Your task to perform on an android device: turn smart compose on in the gmail app Image 0: 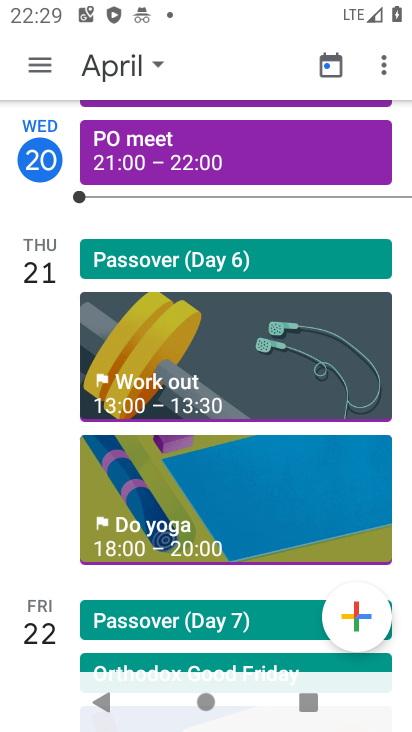
Step 0: press home button
Your task to perform on an android device: turn smart compose on in the gmail app Image 1: 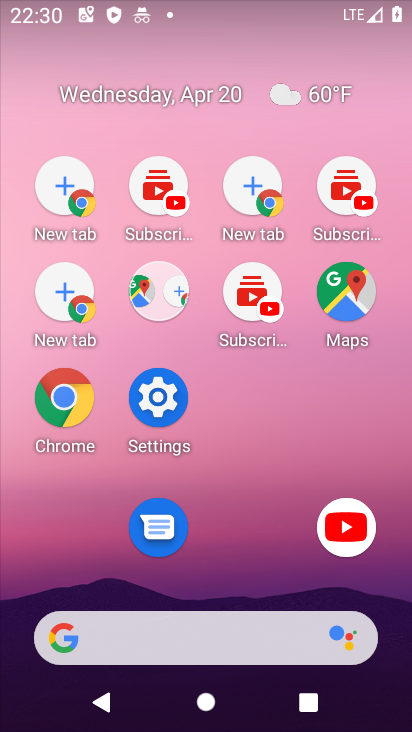
Step 1: drag from (236, 410) to (214, 259)
Your task to perform on an android device: turn smart compose on in the gmail app Image 2: 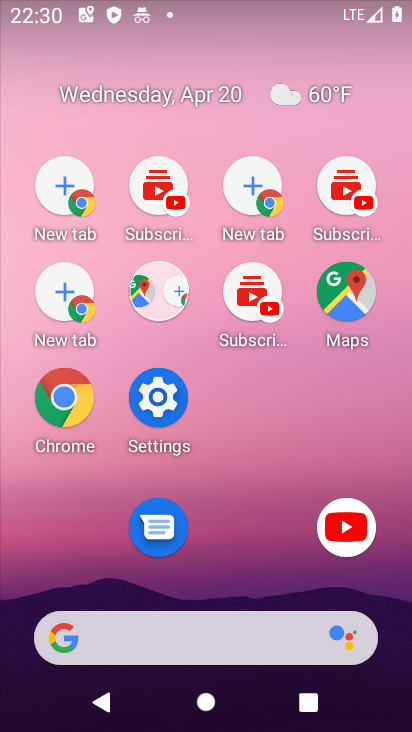
Step 2: drag from (281, 552) to (189, 247)
Your task to perform on an android device: turn smart compose on in the gmail app Image 3: 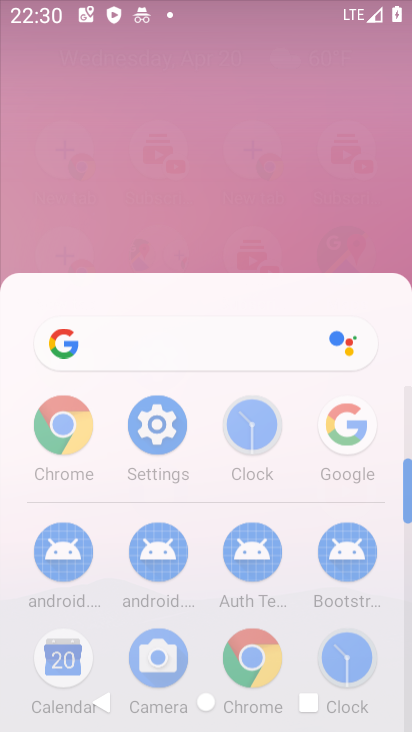
Step 3: drag from (265, 508) to (132, 32)
Your task to perform on an android device: turn smart compose on in the gmail app Image 4: 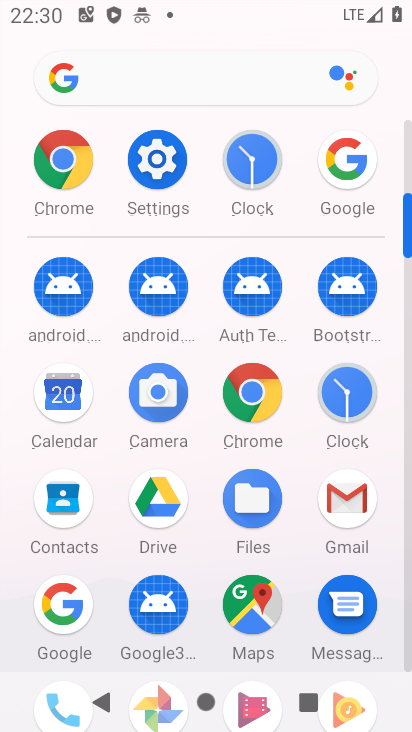
Step 4: click (344, 499)
Your task to perform on an android device: turn smart compose on in the gmail app Image 5: 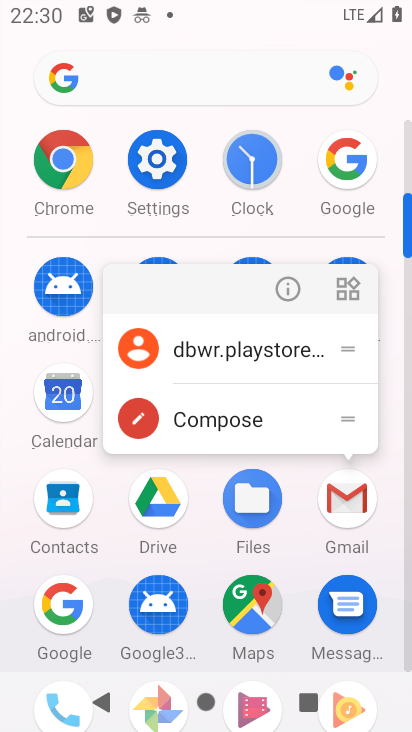
Step 5: click (221, 360)
Your task to perform on an android device: turn smart compose on in the gmail app Image 6: 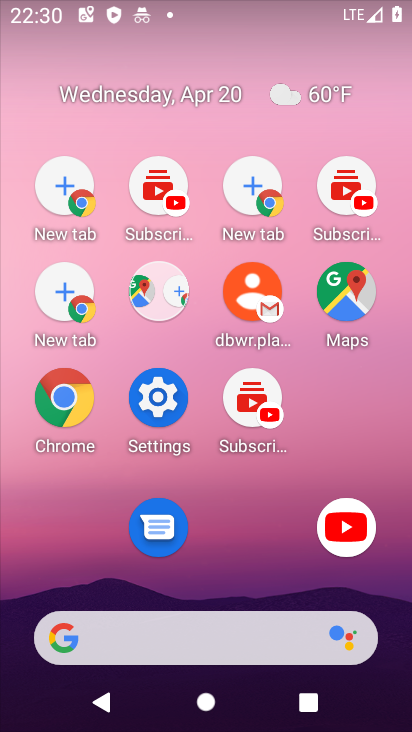
Step 6: drag from (271, 566) to (174, 55)
Your task to perform on an android device: turn smart compose on in the gmail app Image 7: 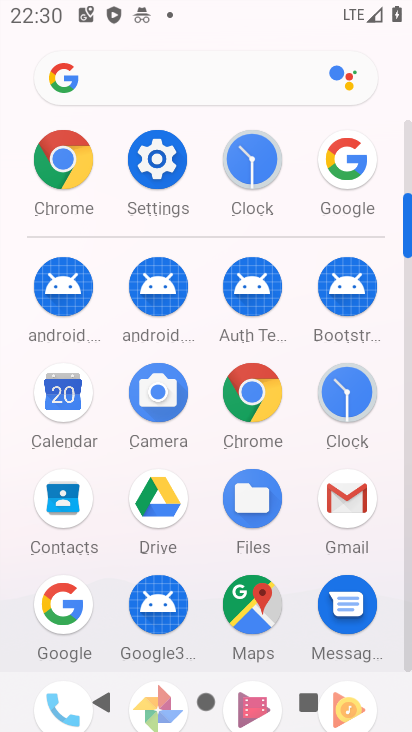
Step 7: click (350, 501)
Your task to perform on an android device: turn smart compose on in the gmail app Image 8: 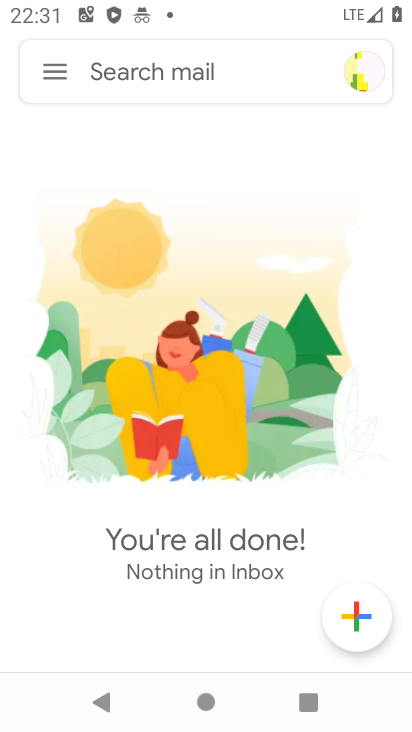
Step 8: click (58, 77)
Your task to perform on an android device: turn smart compose on in the gmail app Image 9: 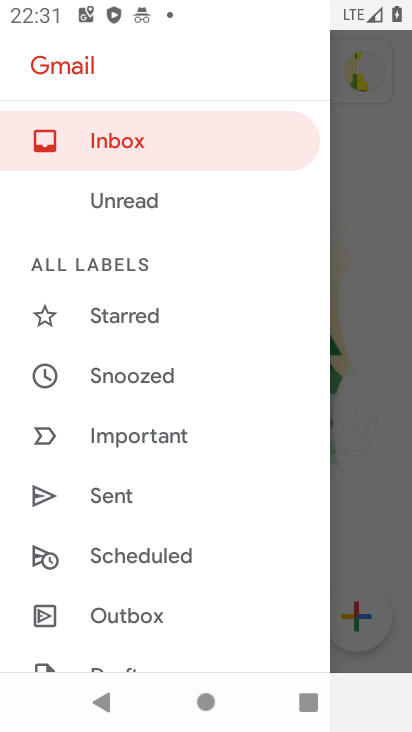
Step 9: click (189, 462)
Your task to perform on an android device: turn smart compose on in the gmail app Image 10: 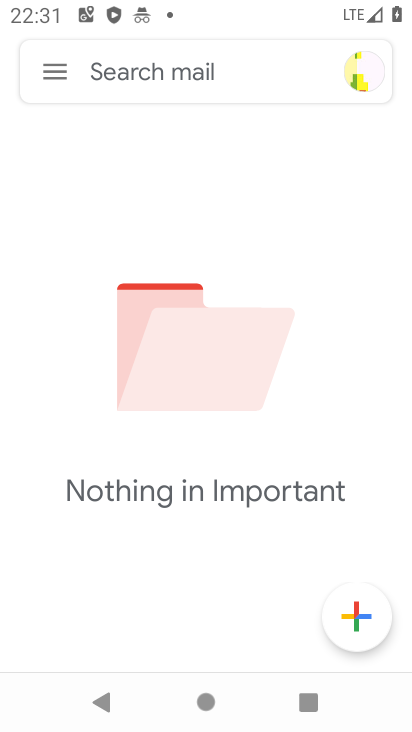
Step 10: click (51, 65)
Your task to perform on an android device: turn smart compose on in the gmail app Image 11: 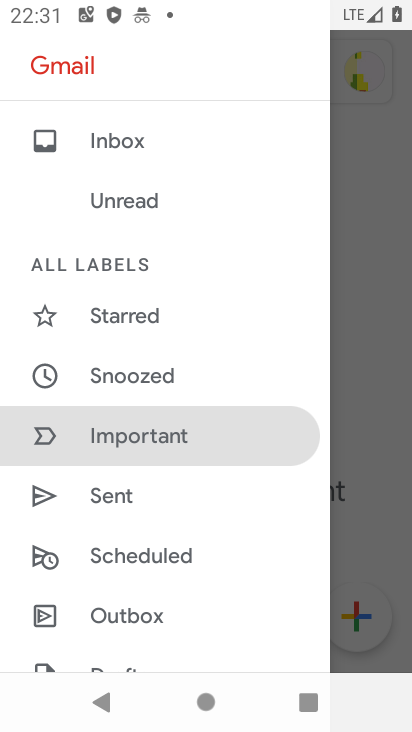
Step 11: drag from (156, 574) to (146, 77)
Your task to perform on an android device: turn smart compose on in the gmail app Image 12: 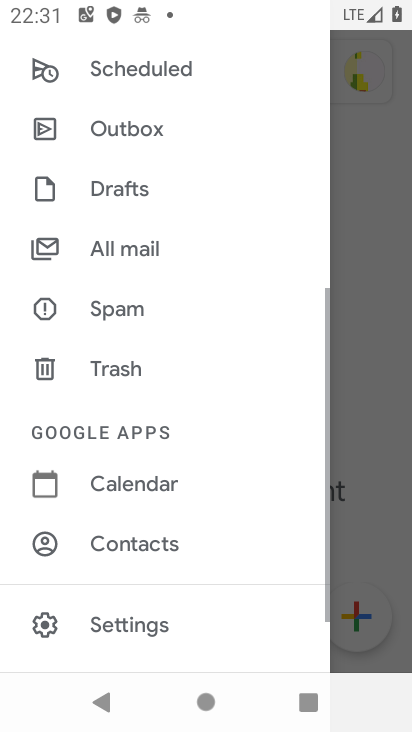
Step 12: drag from (232, 435) to (214, 346)
Your task to perform on an android device: turn smart compose on in the gmail app Image 13: 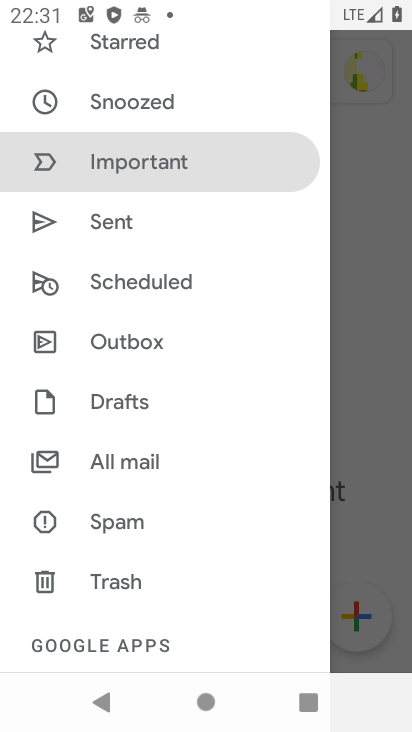
Step 13: drag from (155, 484) to (160, 36)
Your task to perform on an android device: turn smart compose on in the gmail app Image 14: 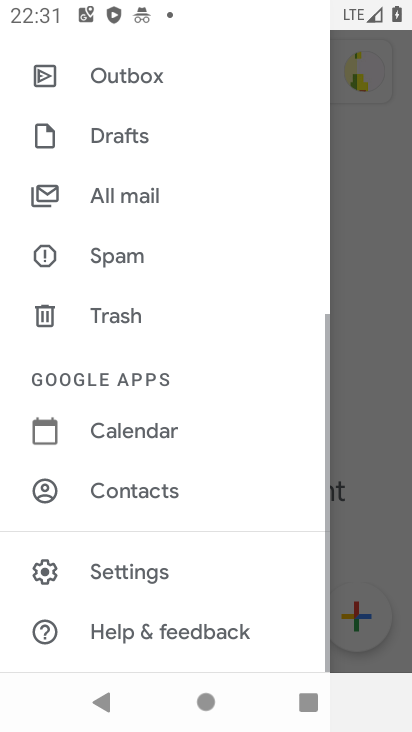
Step 14: click (130, 565)
Your task to perform on an android device: turn smart compose on in the gmail app Image 15: 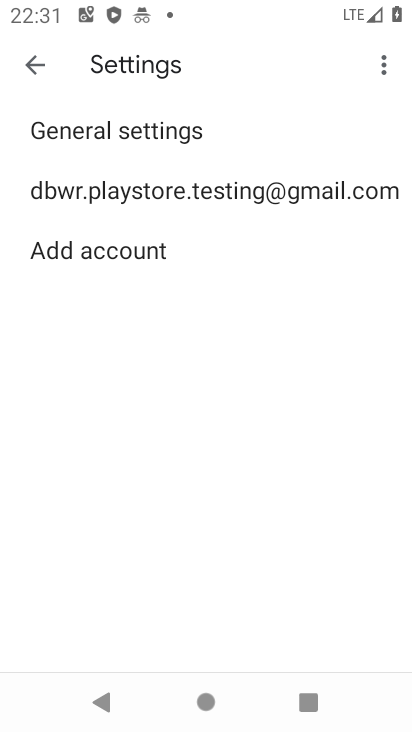
Step 15: click (182, 202)
Your task to perform on an android device: turn smart compose on in the gmail app Image 16: 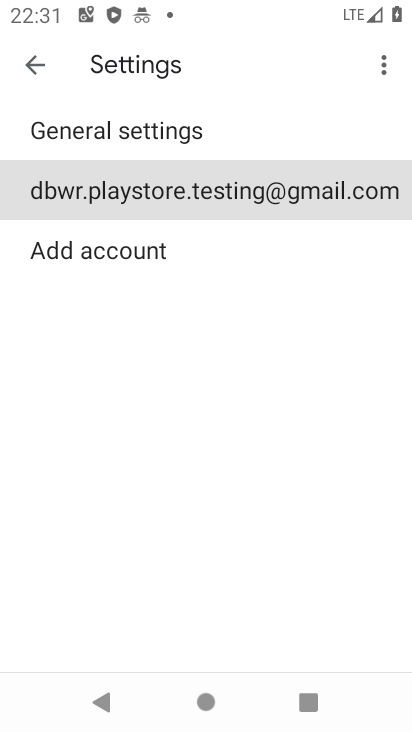
Step 16: click (182, 195)
Your task to perform on an android device: turn smart compose on in the gmail app Image 17: 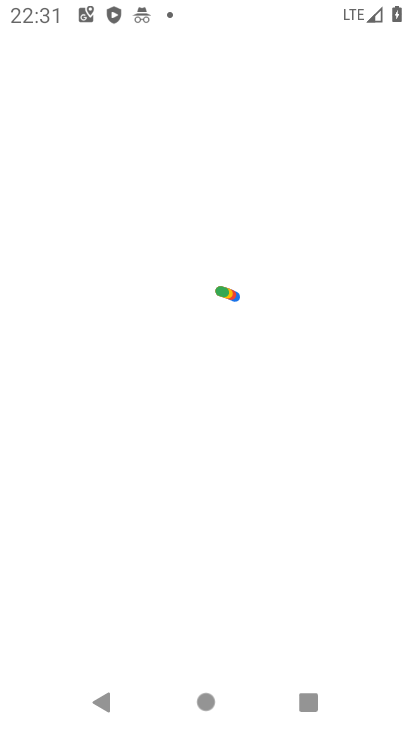
Step 17: press back button
Your task to perform on an android device: turn smart compose on in the gmail app Image 18: 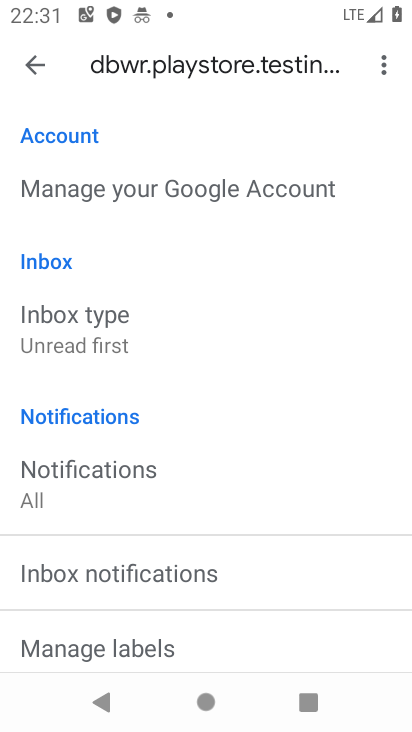
Step 18: drag from (130, 451) to (130, 241)
Your task to perform on an android device: turn smart compose on in the gmail app Image 19: 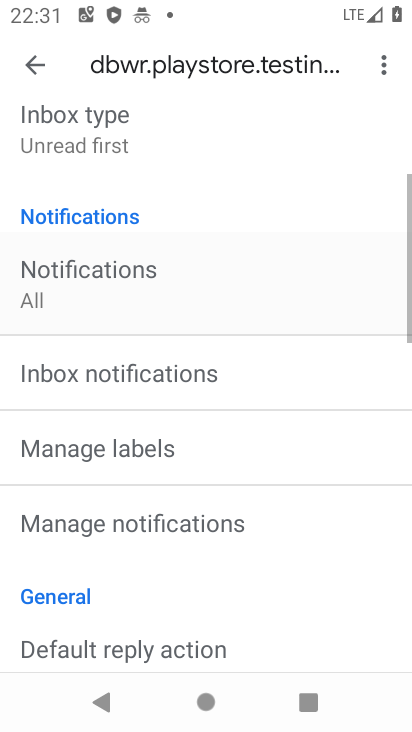
Step 19: drag from (160, 322) to (171, 127)
Your task to perform on an android device: turn smart compose on in the gmail app Image 20: 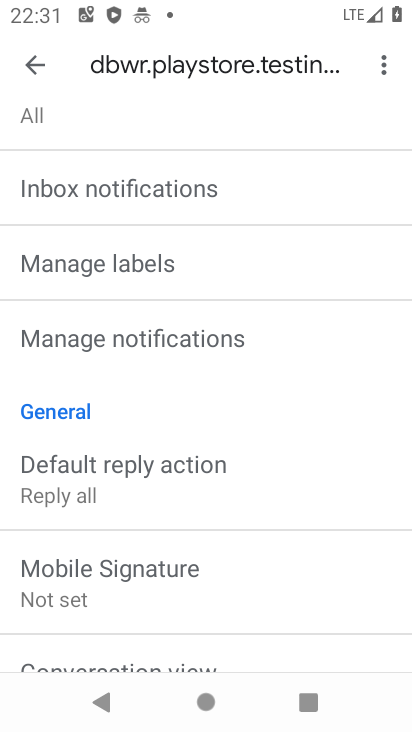
Step 20: drag from (125, 555) to (127, 142)
Your task to perform on an android device: turn smart compose on in the gmail app Image 21: 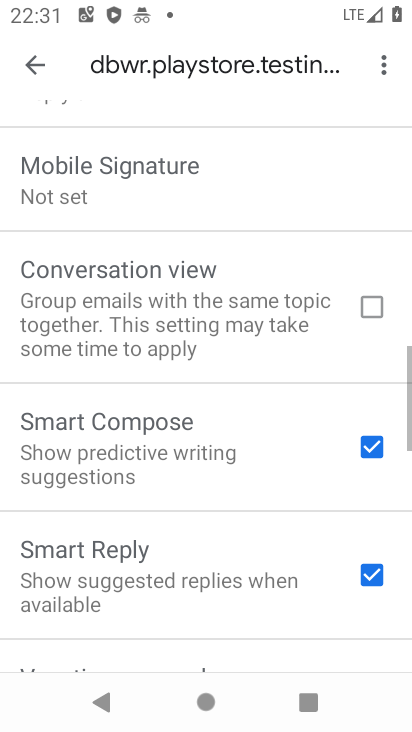
Step 21: drag from (179, 301) to (206, 119)
Your task to perform on an android device: turn smart compose on in the gmail app Image 22: 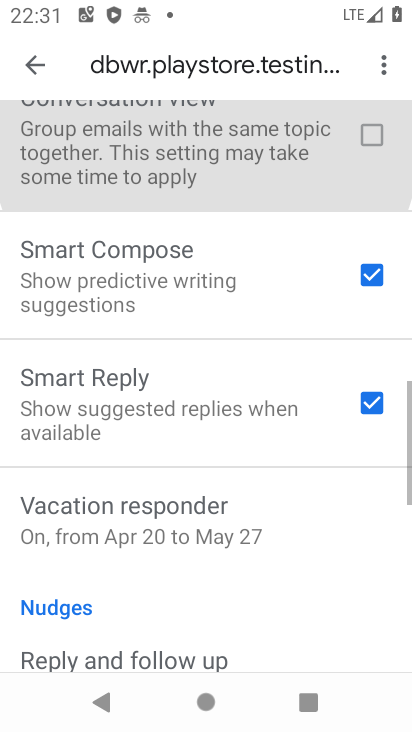
Step 22: drag from (114, 455) to (118, 120)
Your task to perform on an android device: turn smart compose on in the gmail app Image 23: 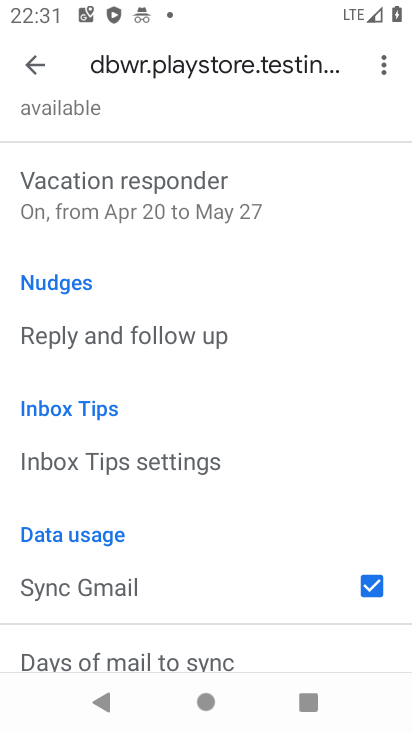
Step 23: drag from (202, 220) to (195, 573)
Your task to perform on an android device: turn smart compose on in the gmail app Image 24: 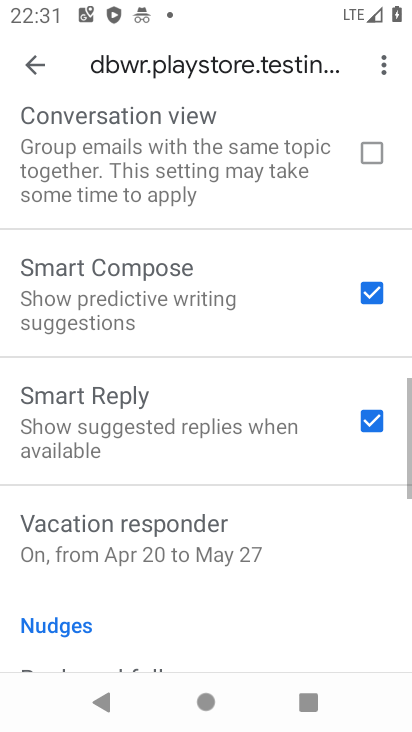
Step 24: drag from (120, 385) to (145, 605)
Your task to perform on an android device: turn smart compose on in the gmail app Image 25: 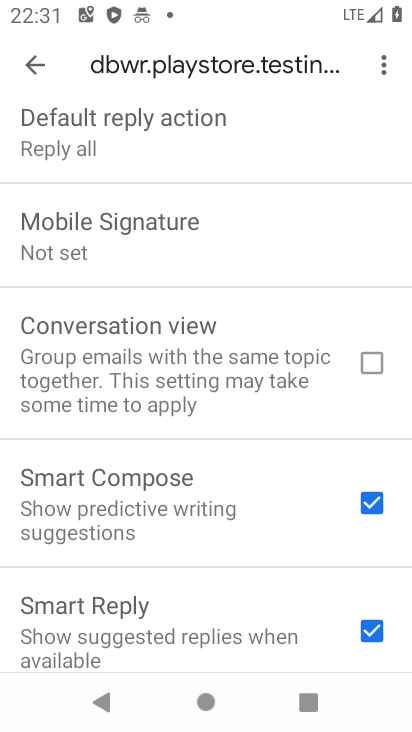
Step 25: click (372, 500)
Your task to perform on an android device: turn smart compose on in the gmail app Image 26: 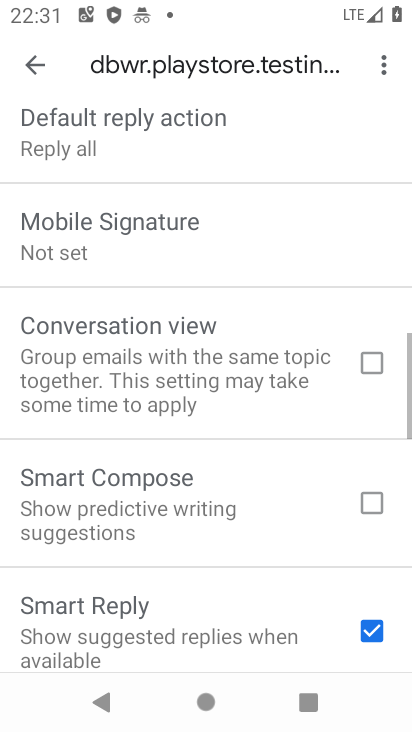
Step 26: click (376, 499)
Your task to perform on an android device: turn smart compose on in the gmail app Image 27: 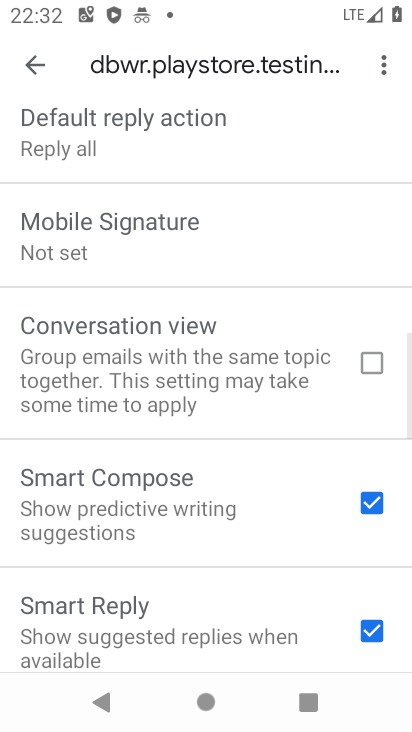
Step 27: task complete